Your task to perform on an android device: Open Google Image 0: 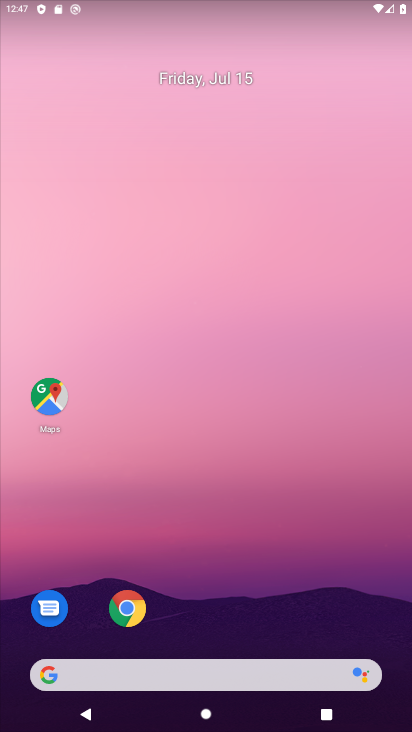
Step 0: drag from (134, 665) to (169, 267)
Your task to perform on an android device: Open Google Image 1: 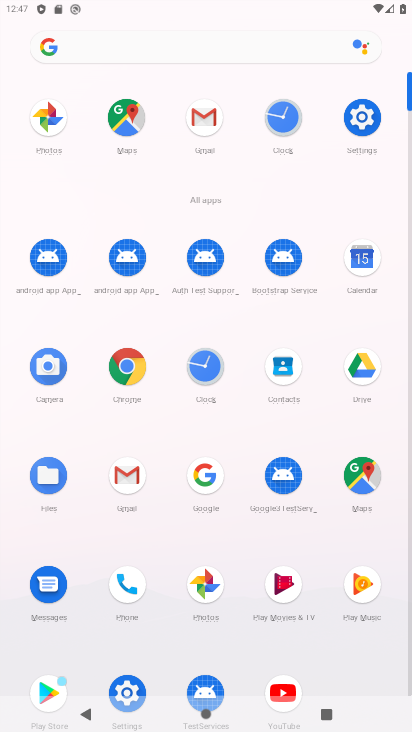
Step 1: click (209, 483)
Your task to perform on an android device: Open Google Image 2: 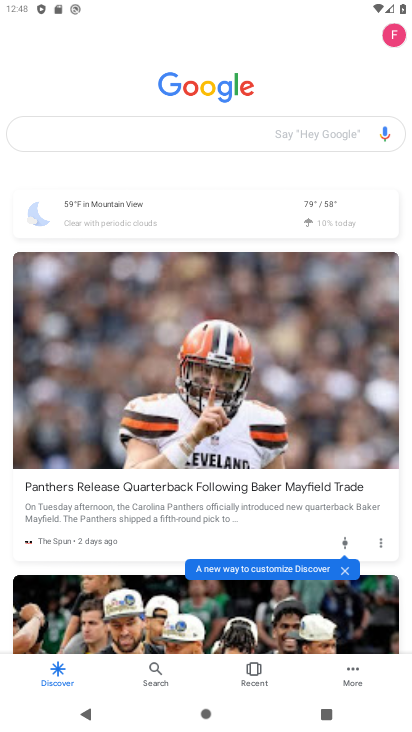
Step 2: task complete